Your task to perform on an android device: Go to location settings Image 0: 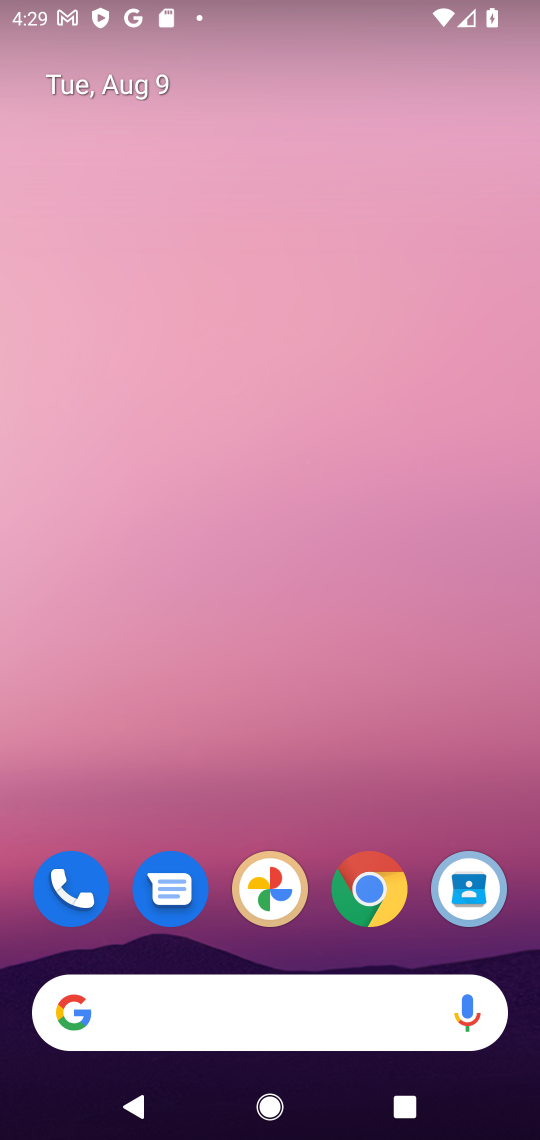
Step 0: drag from (297, 751) to (326, 0)
Your task to perform on an android device: Go to location settings Image 1: 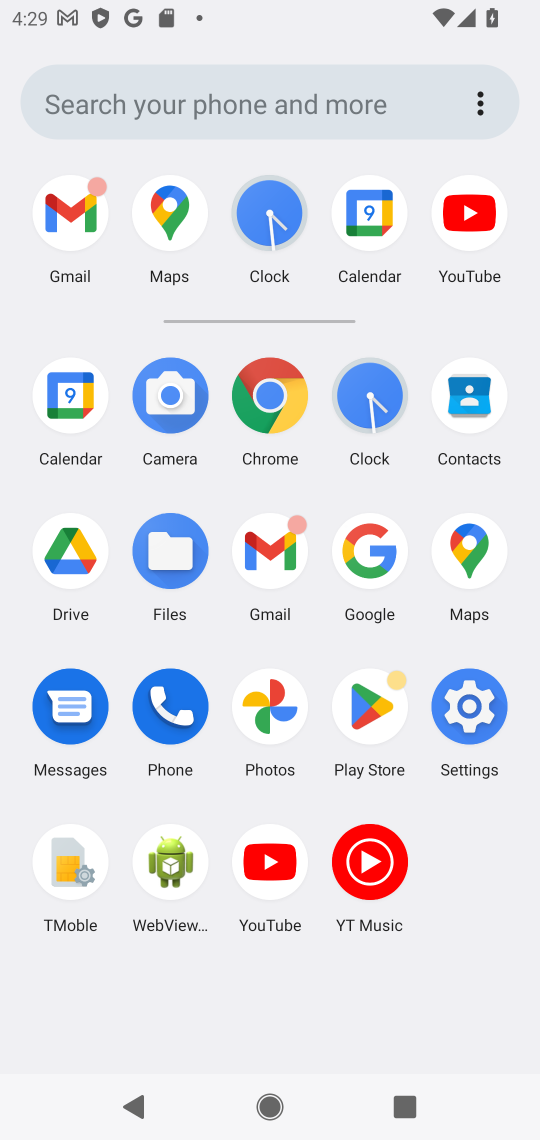
Step 1: click (464, 712)
Your task to perform on an android device: Go to location settings Image 2: 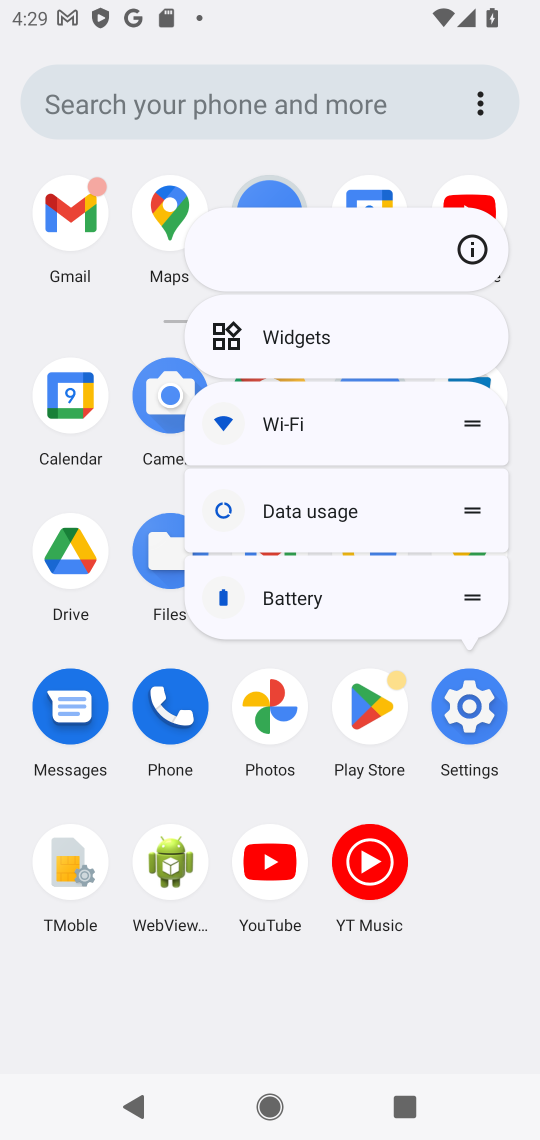
Step 2: click (468, 696)
Your task to perform on an android device: Go to location settings Image 3: 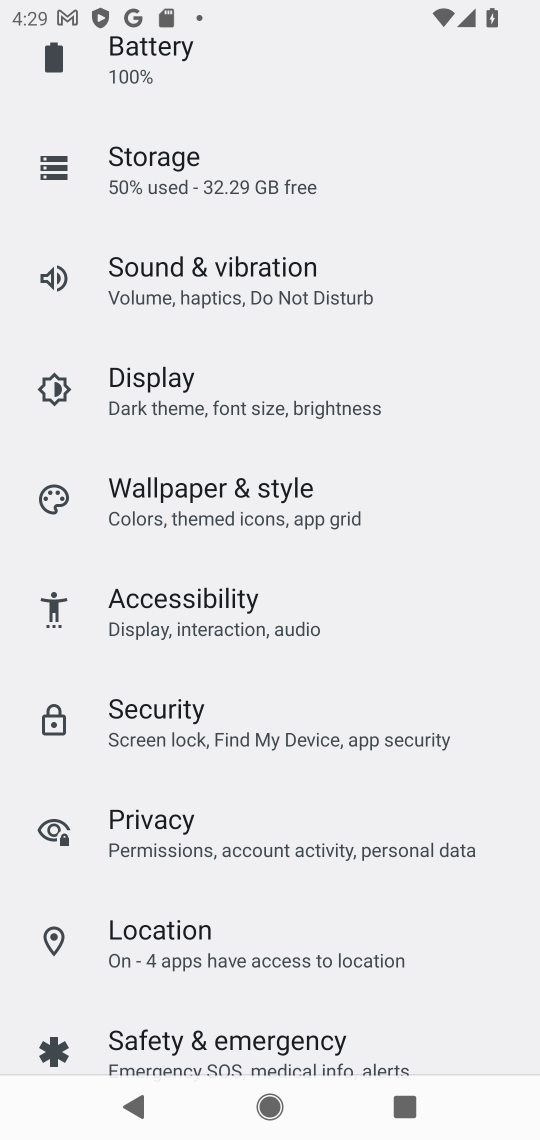
Step 3: click (299, 915)
Your task to perform on an android device: Go to location settings Image 4: 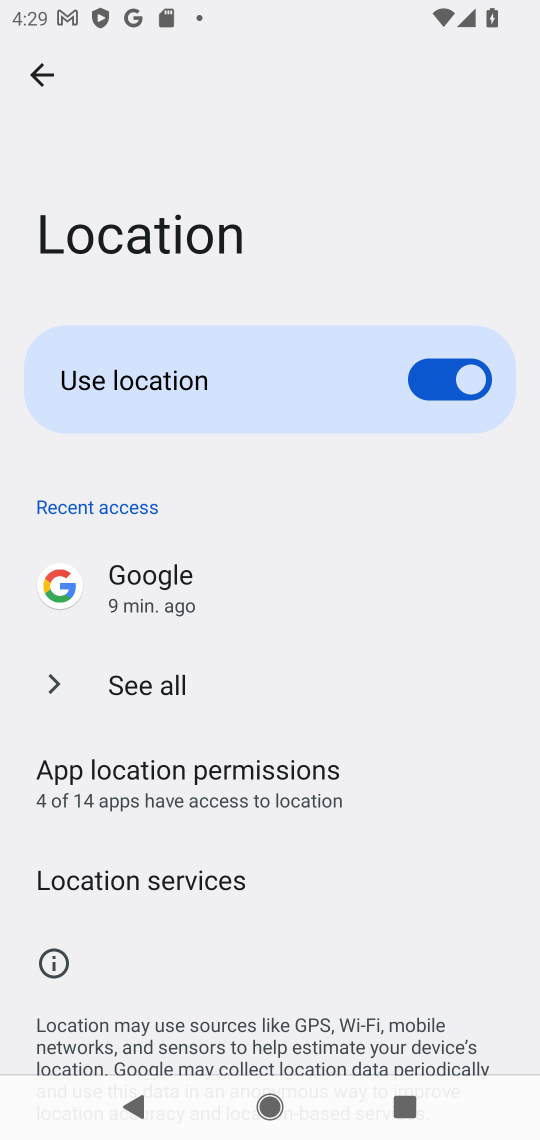
Step 4: task complete